Your task to perform on an android device: Open Google Maps and go to "Timeline" Image 0: 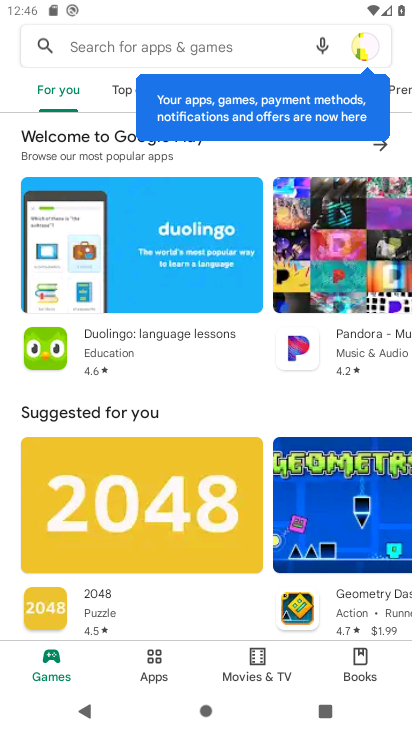
Step 0: press home button
Your task to perform on an android device: Open Google Maps and go to "Timeline" Image 1: 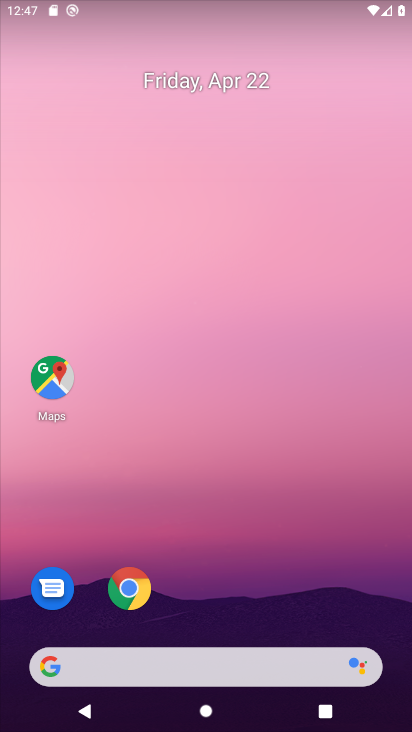
Step 1: drag from (370, 564) to (365, 156)
Your task to perform on an android device: Open Google Maps and go to "Timeline" Image 2: 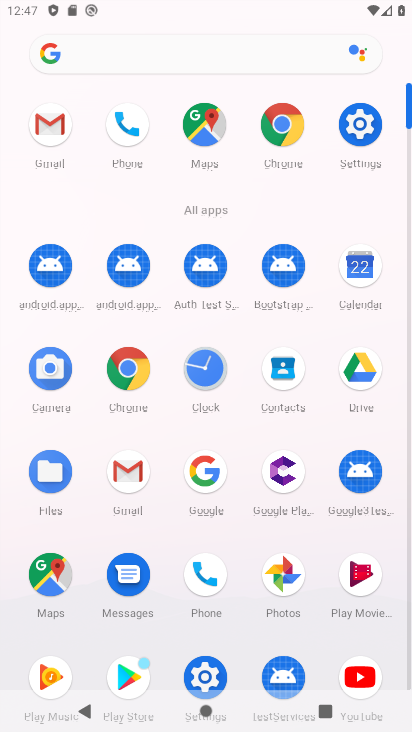
Step 2: click (39, 575)
Your task to perform on an android device: Open Google Maps and go to "Timeline" Image 3: 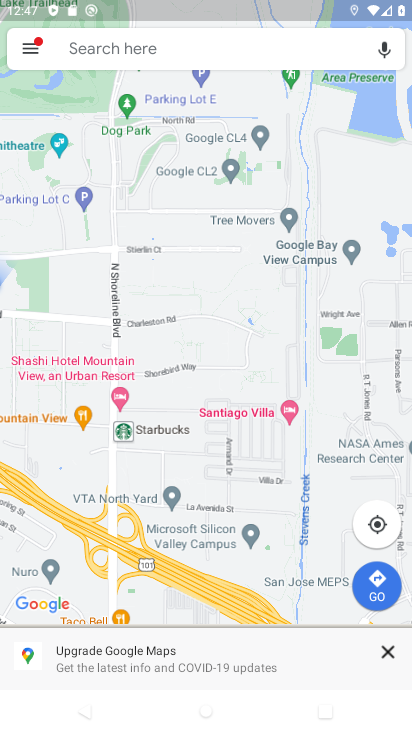
Step 3: click (36, 51)
Your task to perform on an android device: Open Google Maps and go to "Timeline" Image 4: 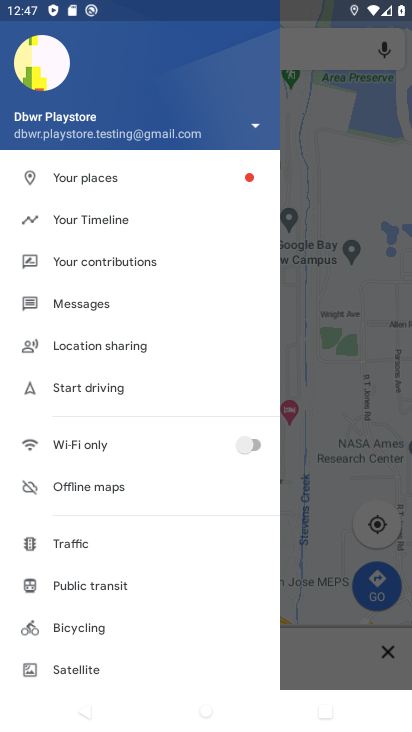
Step 4: click (86, 225)
Your task to perform on an android device: Open Google Maps and go to "Timeline" Image 5: 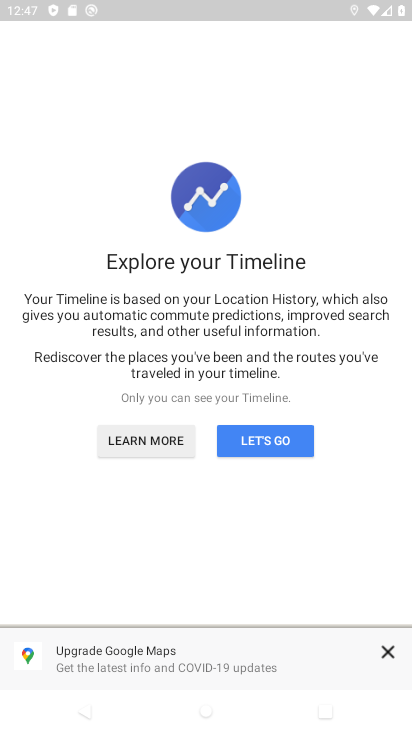
Step 5: click (267, 436)
Your task to perform on an android device: Open Google Maps and go to "Timeline" Image 6: 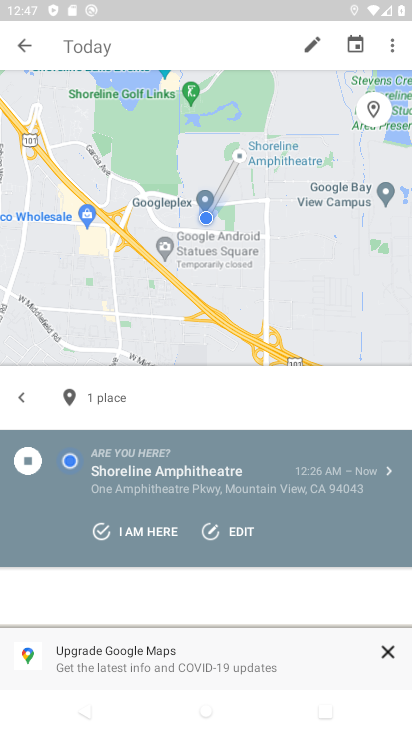
Step 6: task complete